Your task to perform on an android device: Set the phone to "Do not disturb". Image 0: 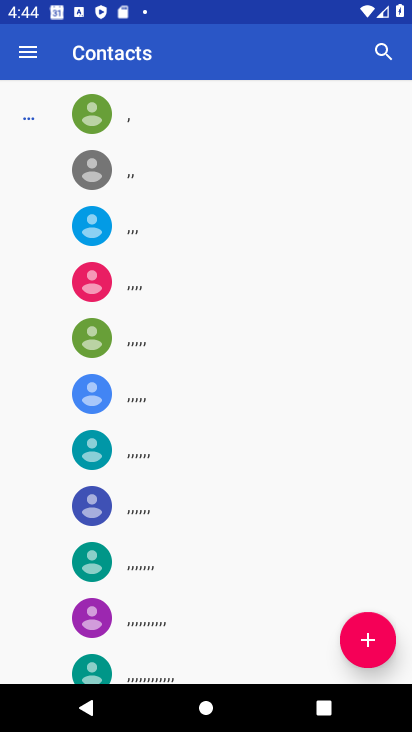
Step 0: press home button
Your task to perform on an android device: Set the phone to "Do not disturb". Image 1: 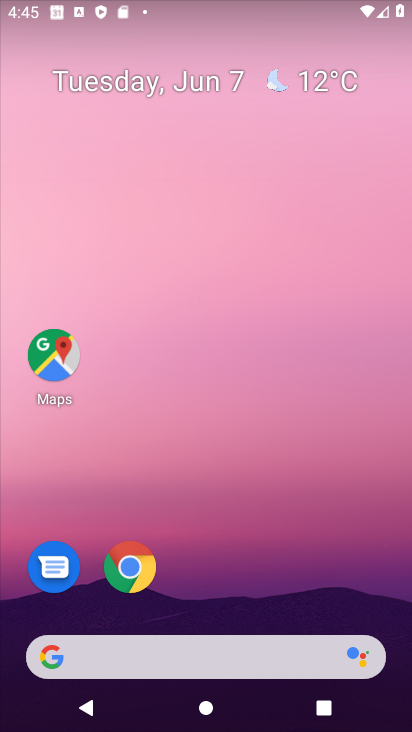
Step 1: drag from (180, 652) to (165, 8)
Your task to perform on an android device: Set the phone to "Do not disturb". Image 2: 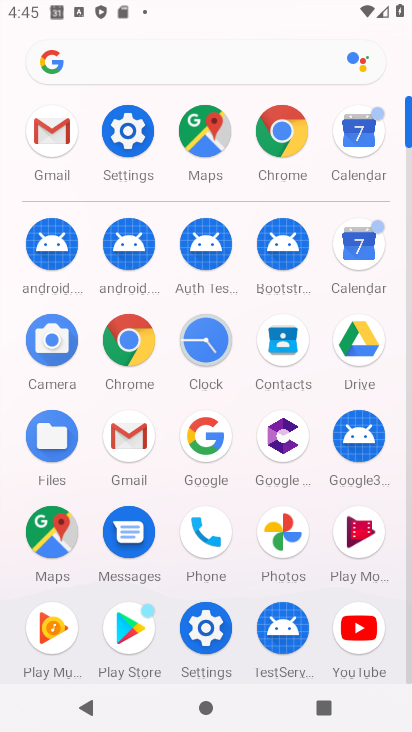
Step 2: click (119, 147)
Your task to perform on an android device: Set the phone to "Do not disturb". Image 3: 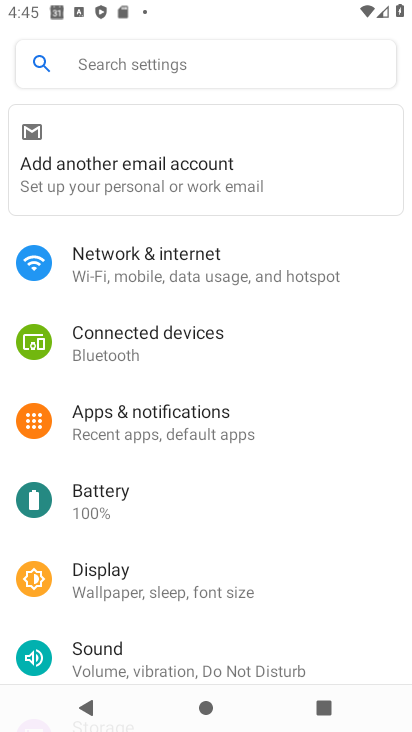
Step 3: click (134, 657)
Your task to perform on an android device: Set the phone to "Do not disturb". Image 4: 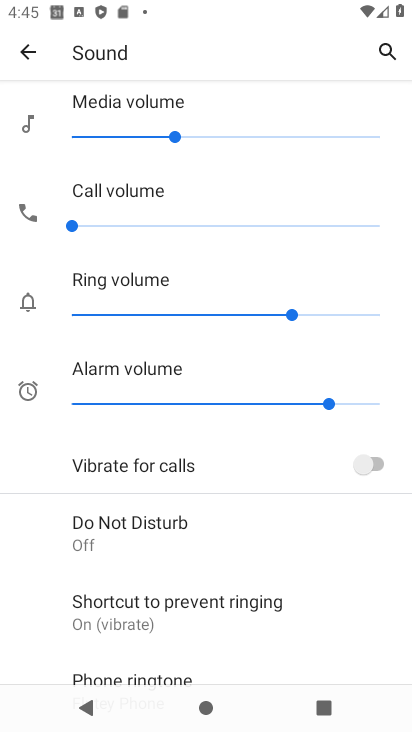
Step 4: drag from (188, 650) to (217, 317)
Your task to perform on an android device: Set the phone to "Do not disturb". Image 5: 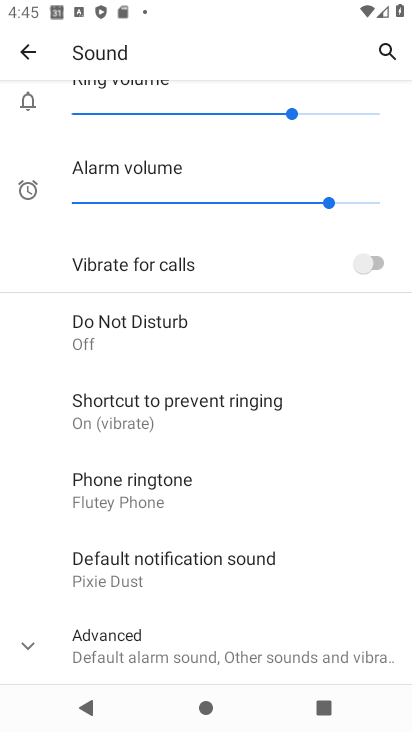
Step 5: click (137, 333)
Your task to perform on an android device: Set the phone to "Do not disturb". Image 6: 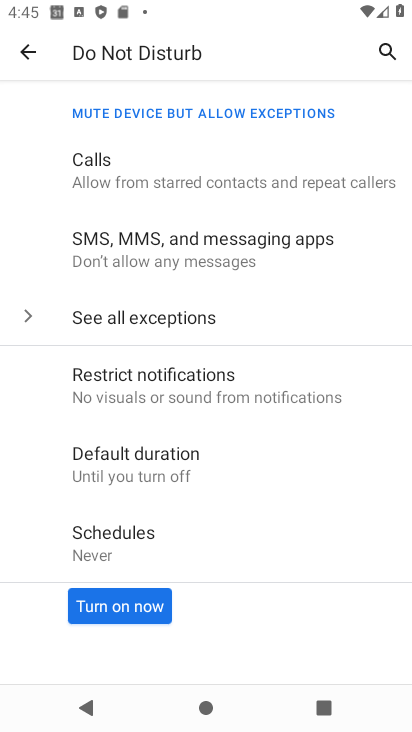
Step 6: click (140, 613)
Your task to perform on an android device: Set the phone to "Do not disturb". Image 7: 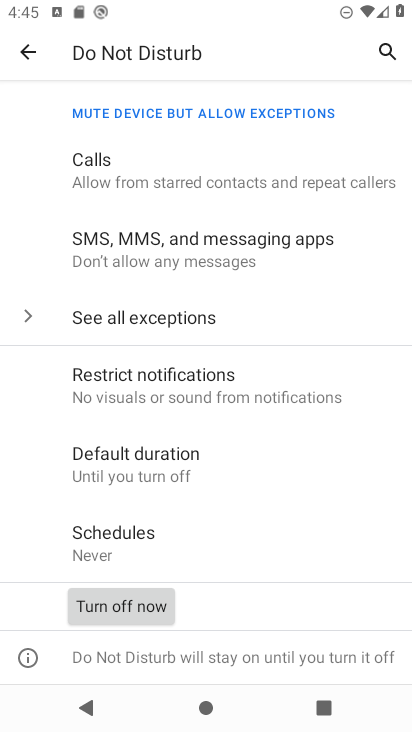
Step 7: task complete